Your task to perform on an android device: Is it going to rain today? Image 0: 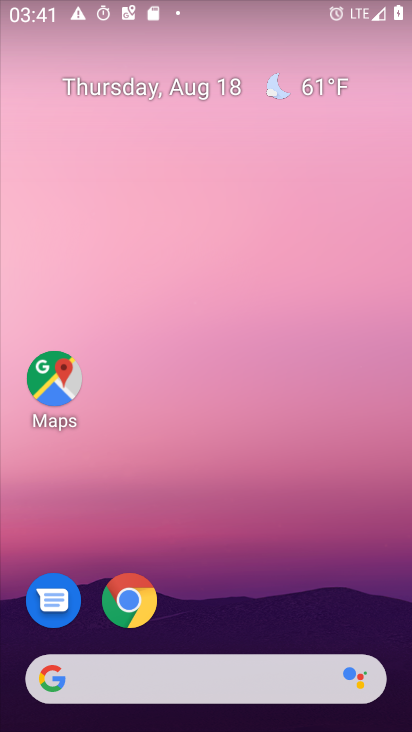
Step 0: press home button
Your task to perform on an android device: Is it going to rain today? Image 1: 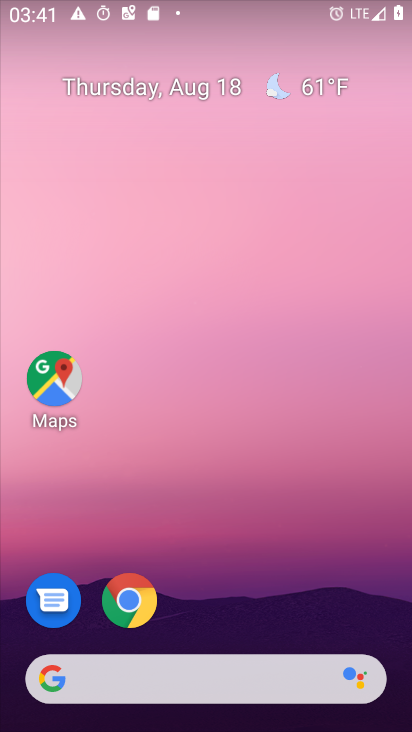
Step 1: click (48, 691)
Your task to perform on an android device: Is it going to rain today? Image 2: 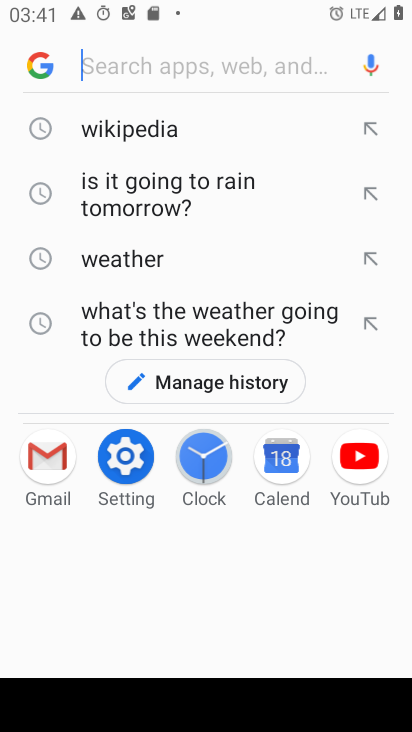
Step 2: type " rain today?"
Your task to perform on an android device: Is it going to rain today? Image 3: 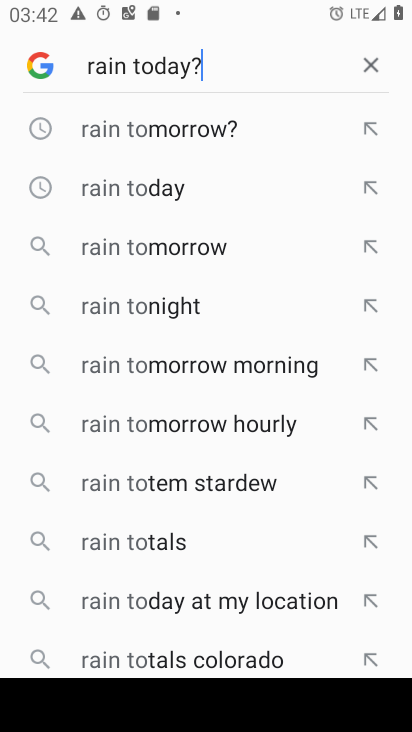
Step 3: press enter
Your task to perform on an android device: Is it going to rain today? Image 4: 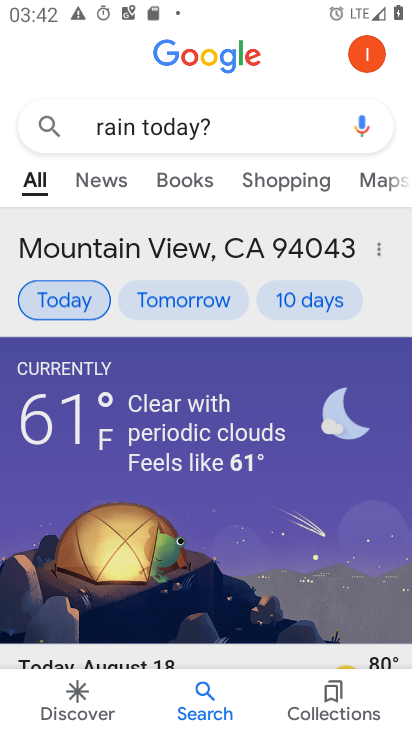
Step 4: task complete